Your task to perform on an android device: read, delete, or share a saved page in the chrome app Image 0: 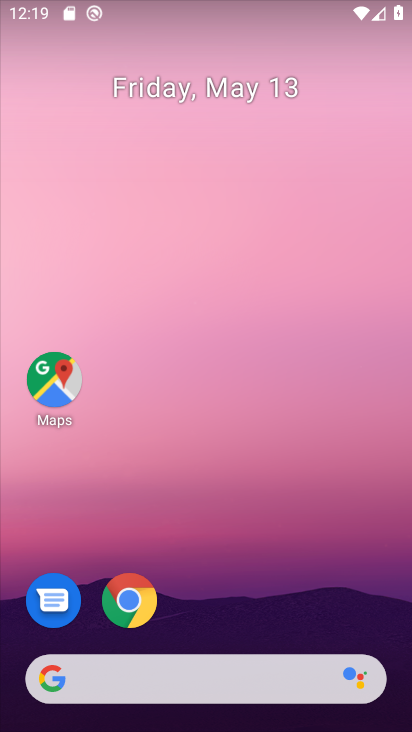
Step 0: click (125, 600)
Your task to perform on an android device: read, delete, or share a saved page in the chrome app Image 1: 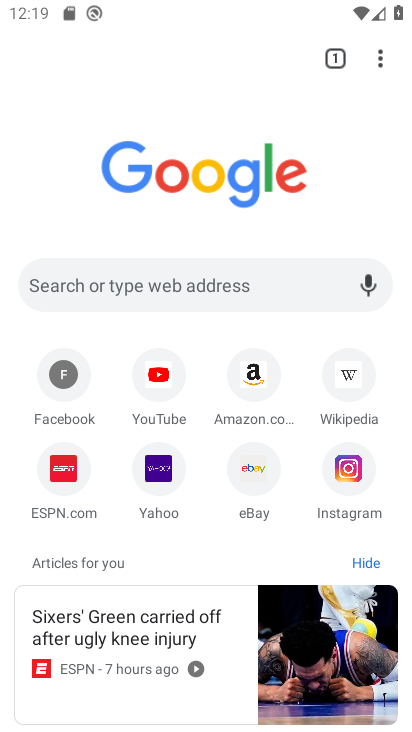
Step 1: task complete